Your task to perform on an android device: Open Reddit.com Image 0: 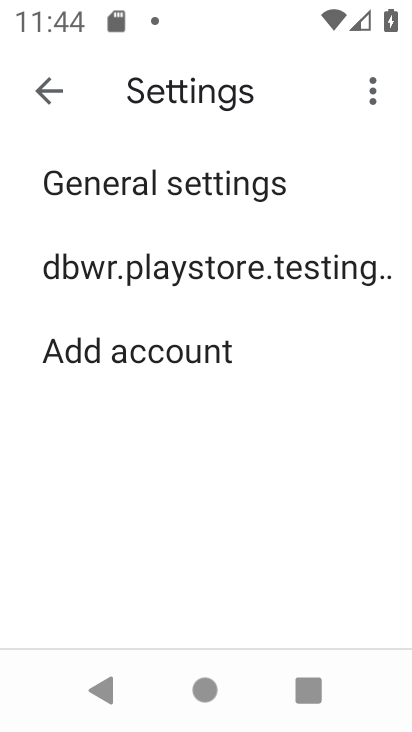
Step 0: press home button
Your task to perform on an android device: Open Reddit.com Image 1: 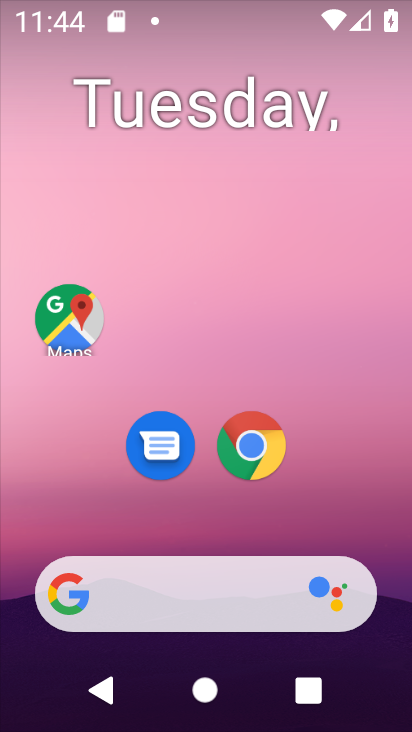
Step 1: drag from (394, 604) to (132, 4)
Your task to perform on an android device: Open Reddit.com Image 2: 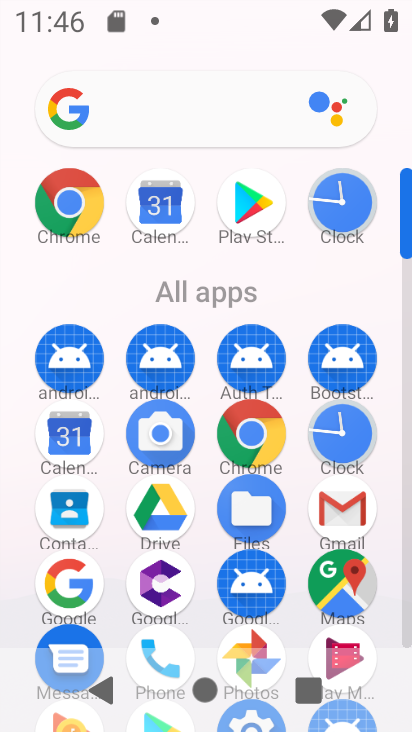
Step 2: click (62, 587)
Your task to perform on an android device: Open Reddit.com Image 3: 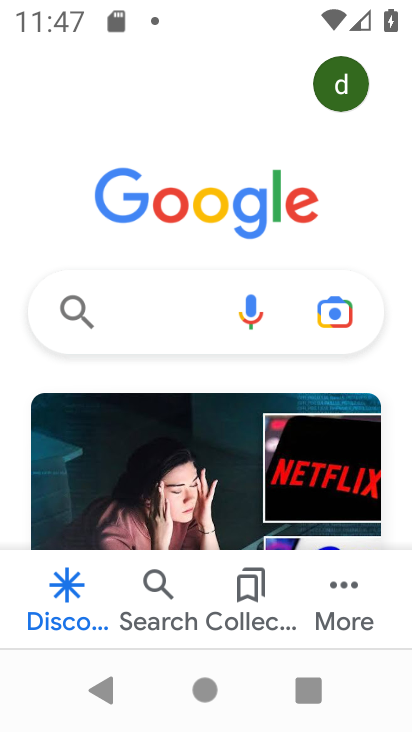
Step 3: click (171, 306)
Your task to perform on an android device: Open Reddit.com Image 4: 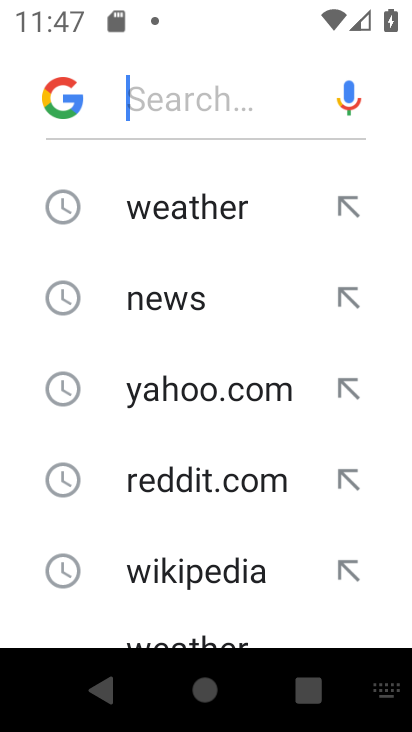
Step 4: click (252, 497)
Your task to perform on an android device: Open Reddit.com Image 5: 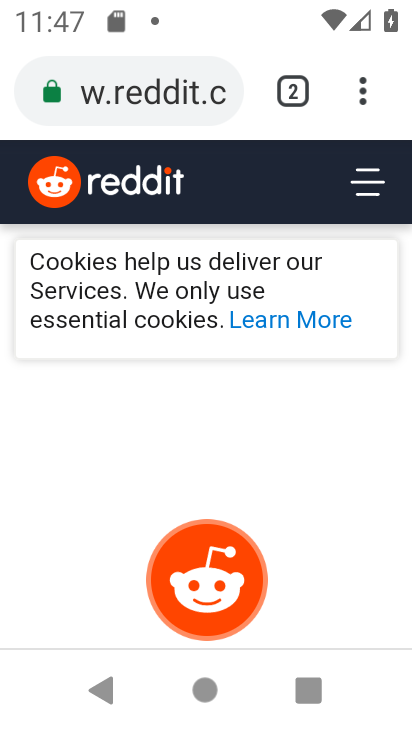
Step 5: task complete